Your task to perform on an android device: Go to location settings Image 0: 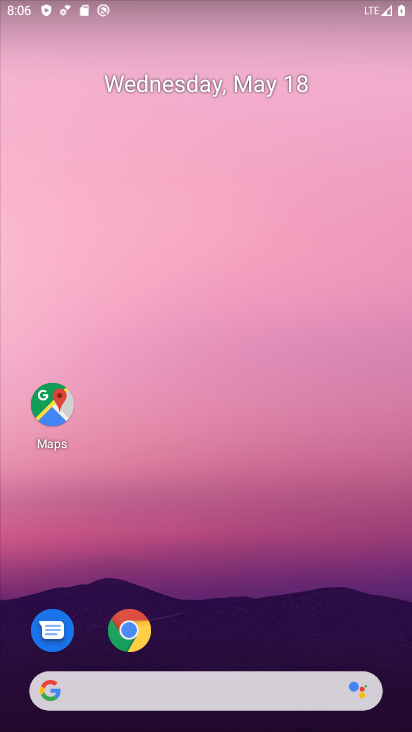
Step 0: drag from (175, 697) to (291, 78)
Your task to perform on an android device: Go to location settings Image 1: 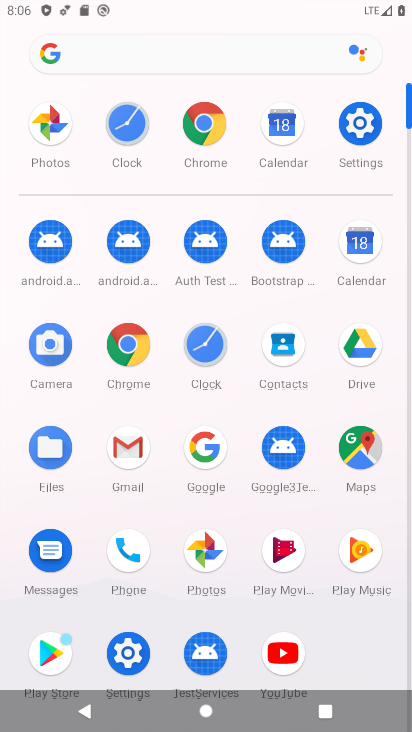
Step 1: click (361, 130)
Your task to perform on an android device: Go to location settings Image 2: 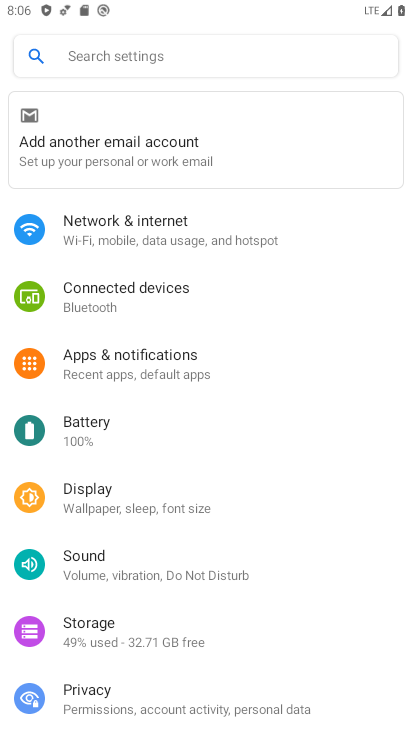
Step 2: drag from (219, 541) to (302, 246)
Your task to perform on an android device: Go to location settings Image 3: 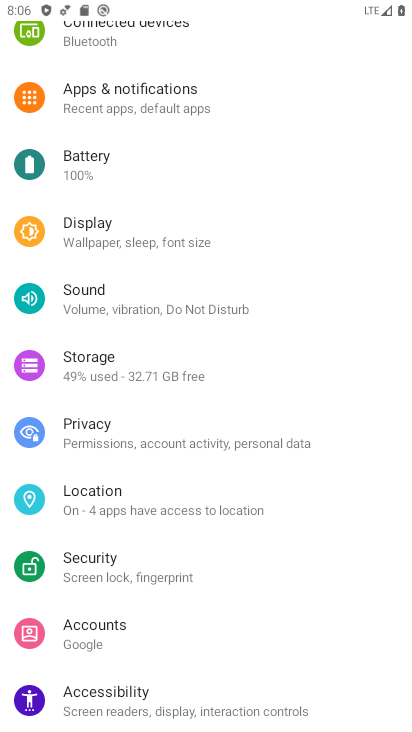
Step 3: click (100, 493)
Your task to perform on an android device: Go to location settings Image 4: 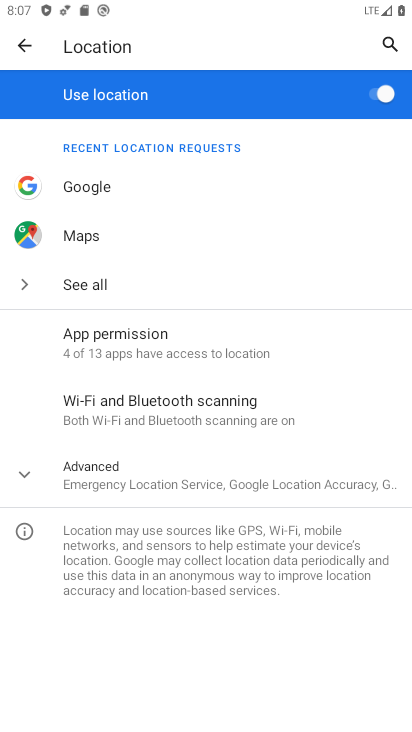
Step 4: task complete